Your task to perform on an android device: Open Google Chrome and open the bookmarks view Image 0: 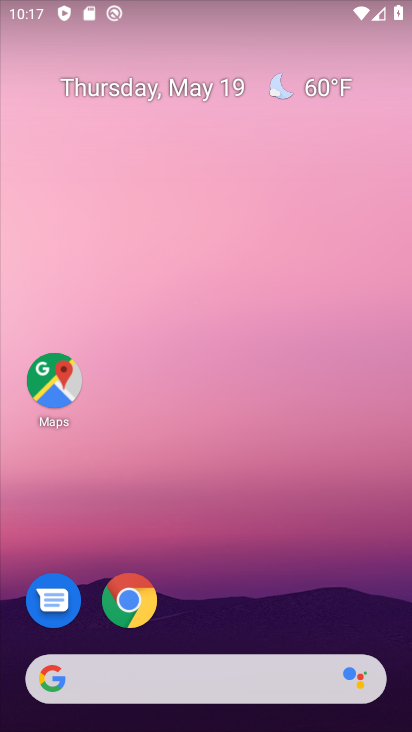
Step 0: drag from (369, 617) to (364, 233)
Your task to perform on an android device: Open Google Chrome and open the bookmarks view Image 1: 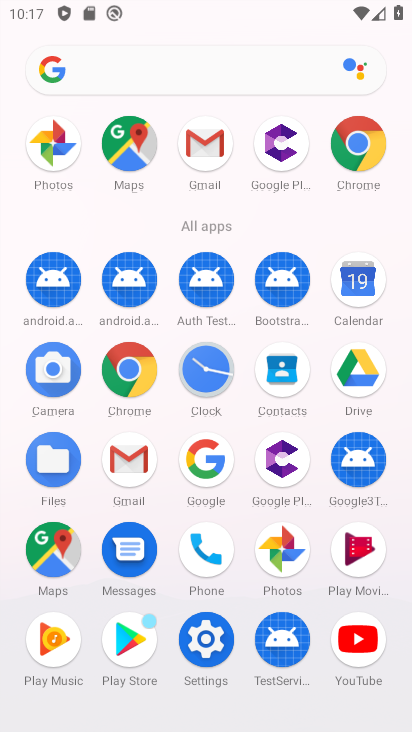
Step 1: click (130, 385)
Your task to perform on an android device: Open Google Chrome and open the bookmarks view Image 2: 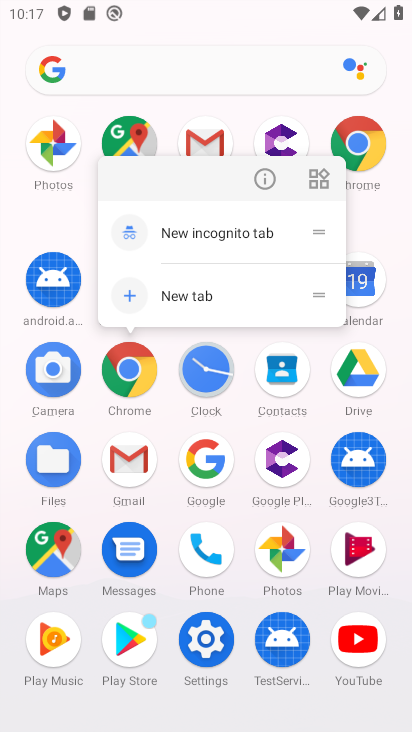
Step 2: click (130, 382)
Your task to perform on an android device: Open Google Chrome and open the bookmarks view Image 3: 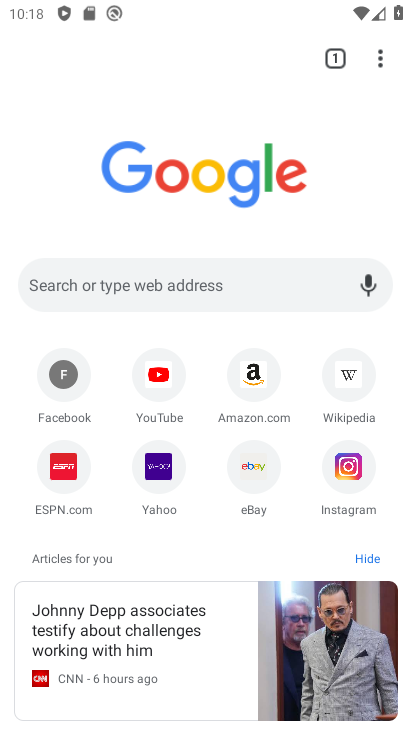
Step 3: click (380, 64)
Your task to perform on an android device: Open Google Chrome and open the bookmarks view Image 4: 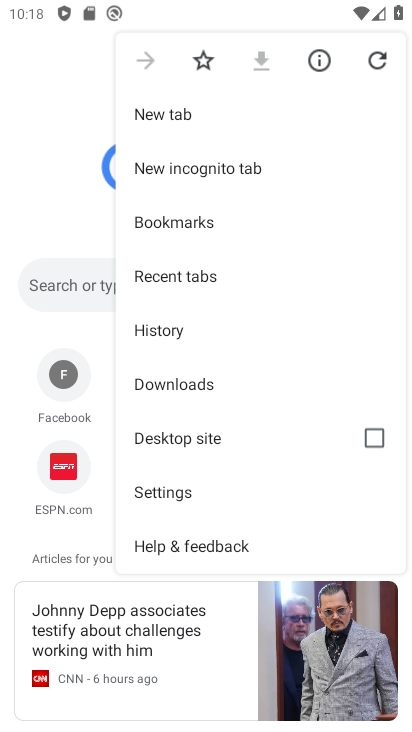
Step 4: click (243, 216)
Your task to perform on an android device: Open Google Chrome and open the bookmarks view Image 5: 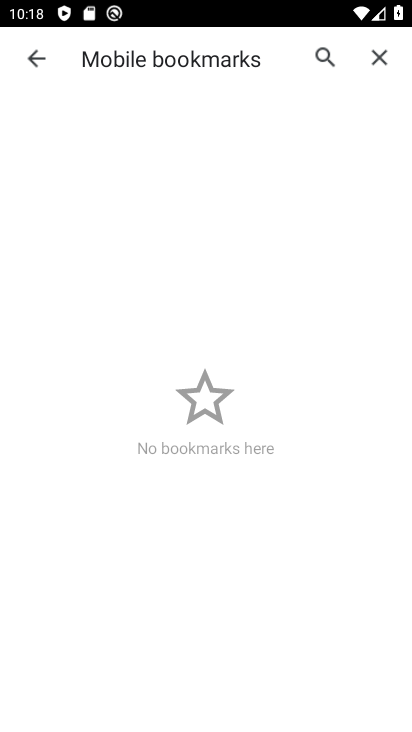
Step 5: task complete